Your task to perform on an android device: Search for Italian restaurants on Maps Image 0: 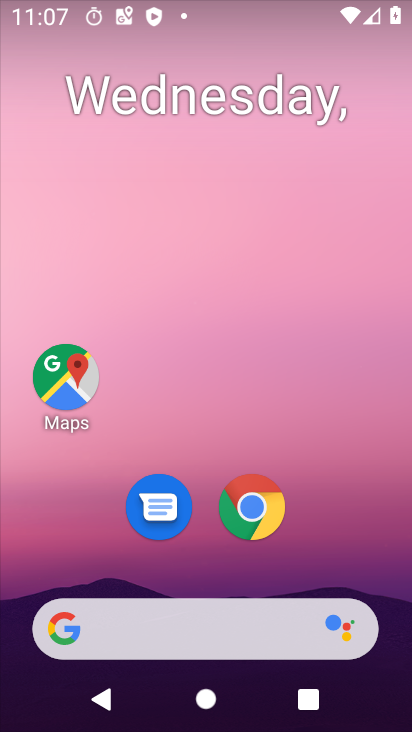
Step 0: drag from (237, 713) to (237, 134)
Your task to perform on an android device: Search for Italian restaurants on Maps Image 1: 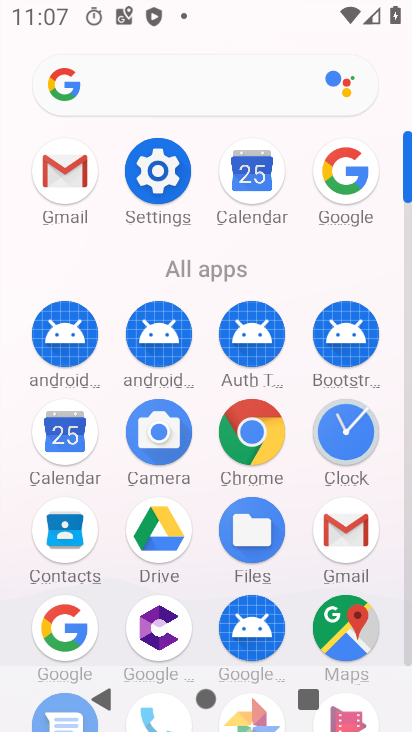
Step 1: click (335, 614)
Your task to perform on an android device: Search for Italian restaurants on Maps Image 2: 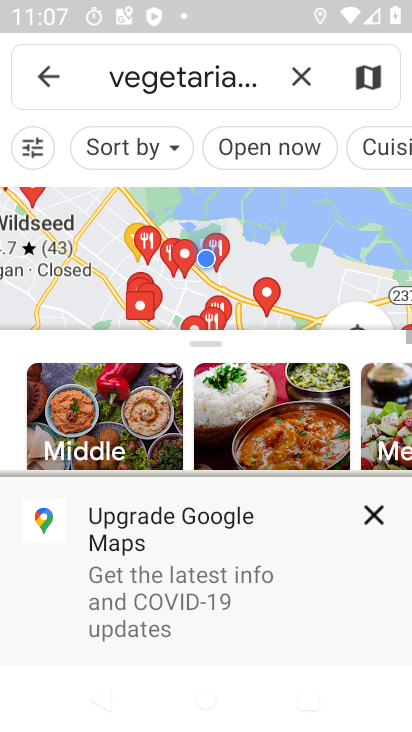
Step 2: click (301, 71)
Your task to perform on an android device: Search for Italian restaurants on Maps Image 3: 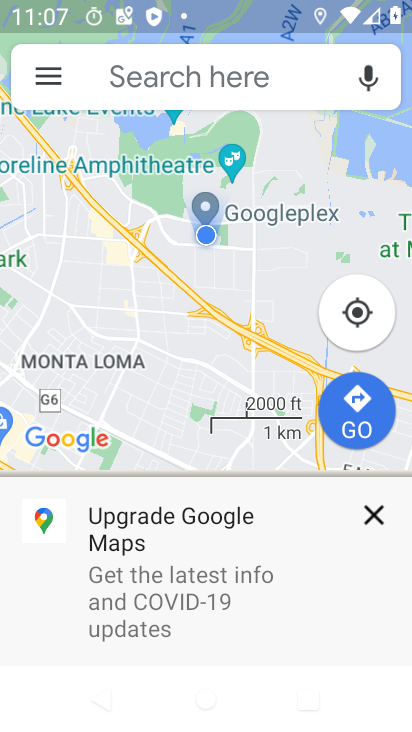
Step 3: click (229, 74)
Your task to perform on an android device: Search for Italian restaurants on Maps Image 4: 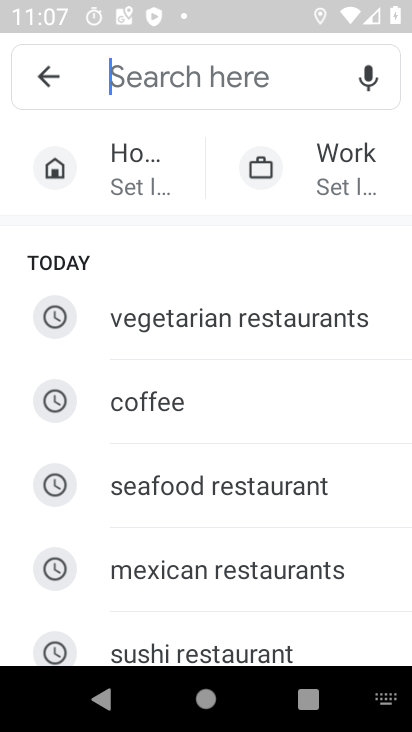
Step 4: type "Italian restaurants"
Your task to perform on an android device: Search for Italian restaurants on Maps Image 5: 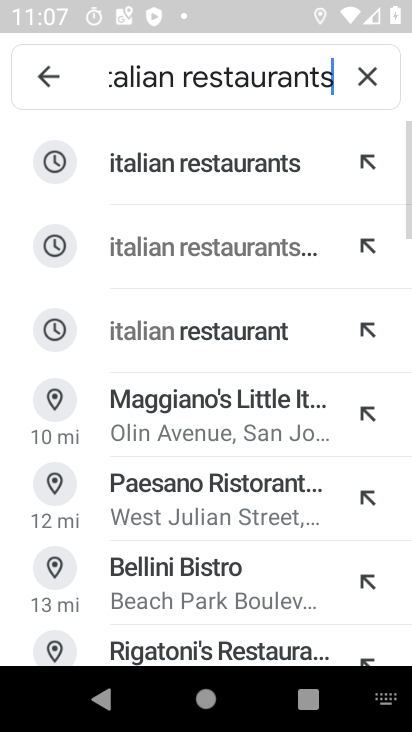
Step 5: click (176, 169)
Your task to perform on an android device: Search for Italian restaurants on Maps Image 6: 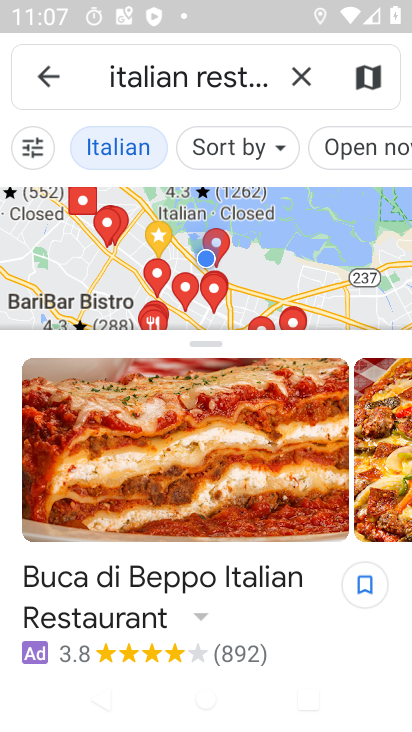
Step 6: task complete